Your task to perform on an android device: toggle pop-ups in chrome Image 0: 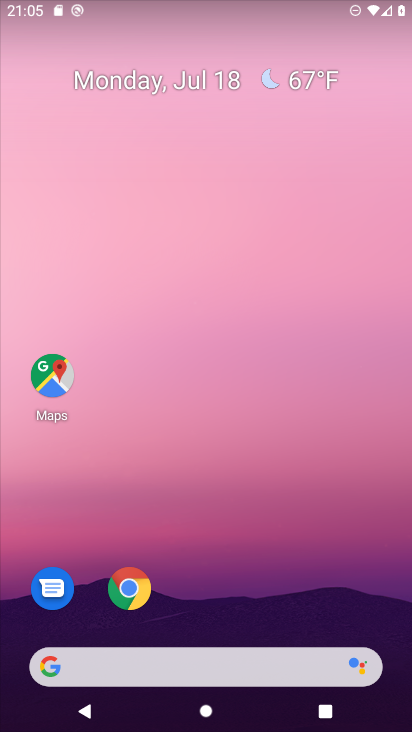
Step 0: click (129, 587)
Your task to perform on an android device: toggle pop-ups in chrome Image 1: 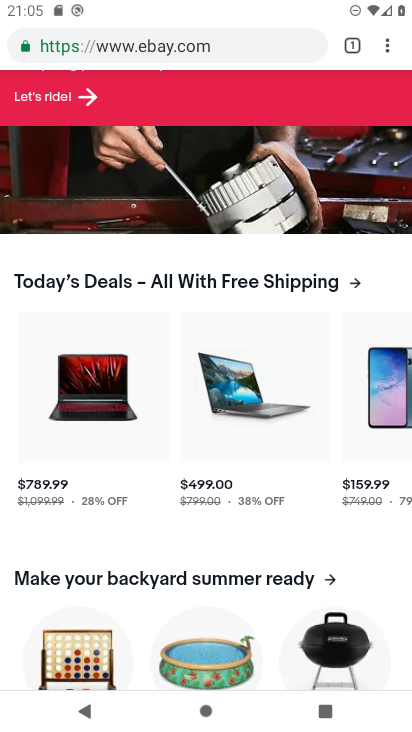
Step 1: click (387, 49)
Your task to perform on an android device: toggle pop-ups in chrome Image 2: 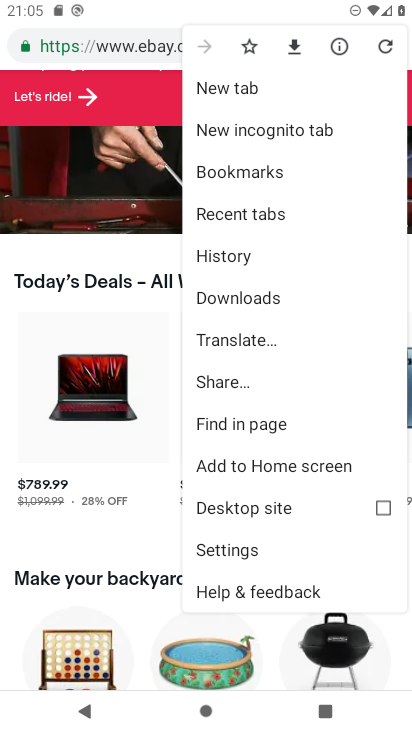
Step 2: click (242, 552)
Your task to perform on an android device: toggle pop-ups in chrome Image 3: 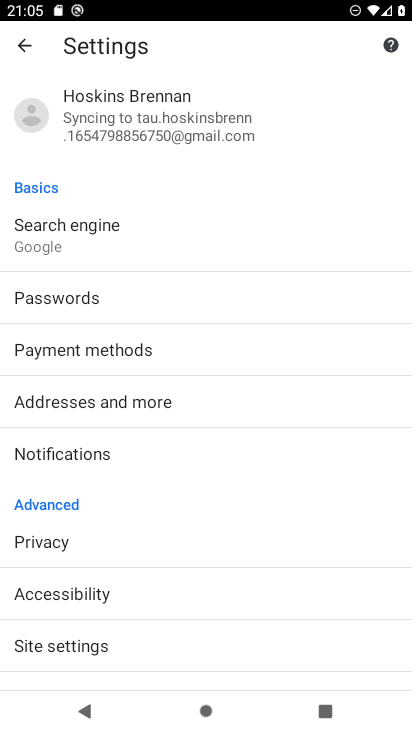
Step 3: click (83, 641)
Your task to perform on an android device: toggle pop-ups in chrome Image 4: 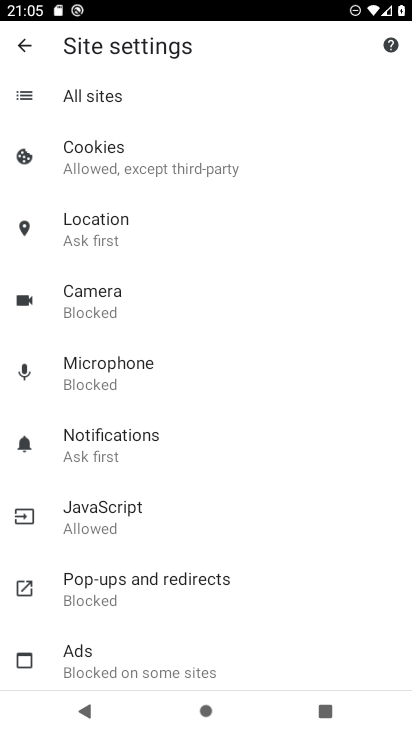
Step 4: click (103, 586)
Your task to perform on an android device: toggle pop-ups in chrome Image 5: 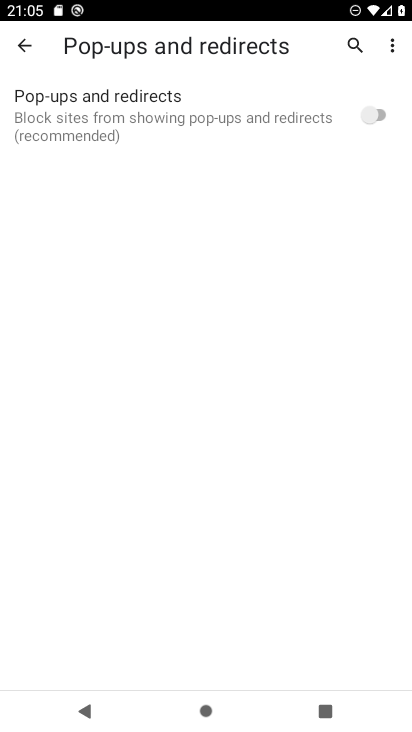
Step 5: click (384, 113)
Your task to perform on an android device: toggle pop-ups in chrome Image 6: 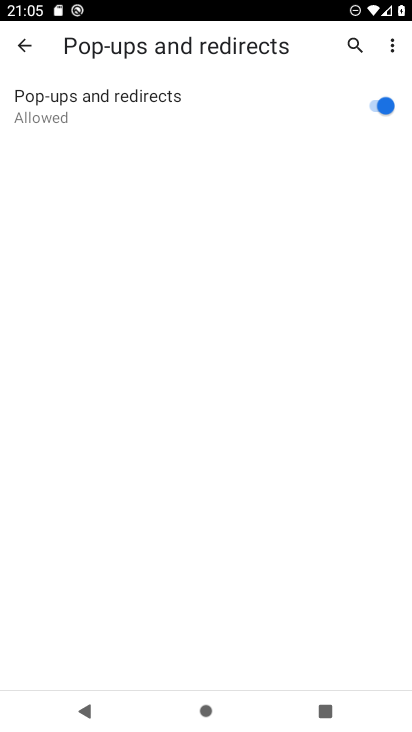
Step 6: task complete